Your task to perform on an android device: turn notification dots on Image 0: 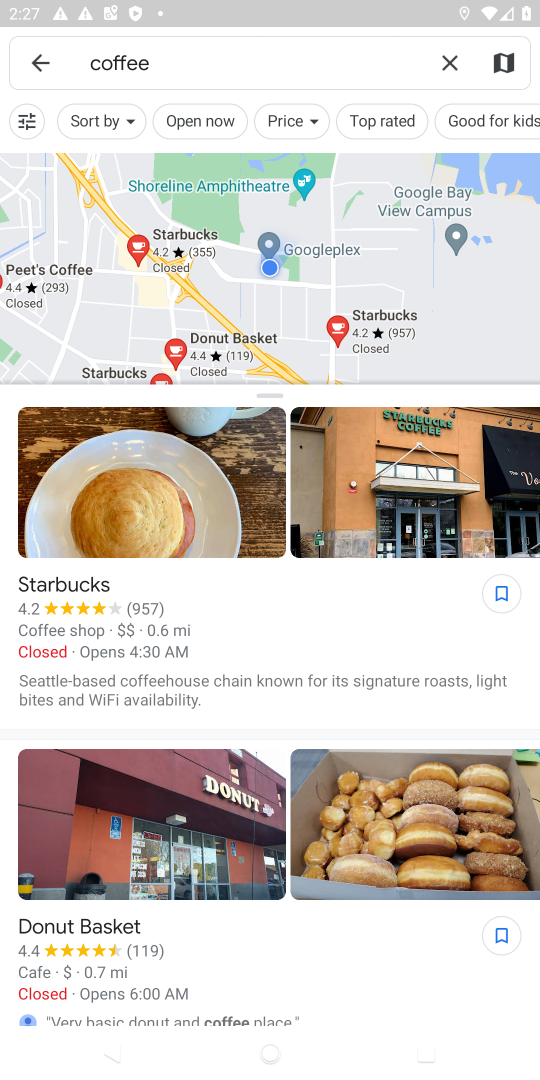
Step 0: press home button
Your task to perform on an android device: turn notification dots on Image 1: 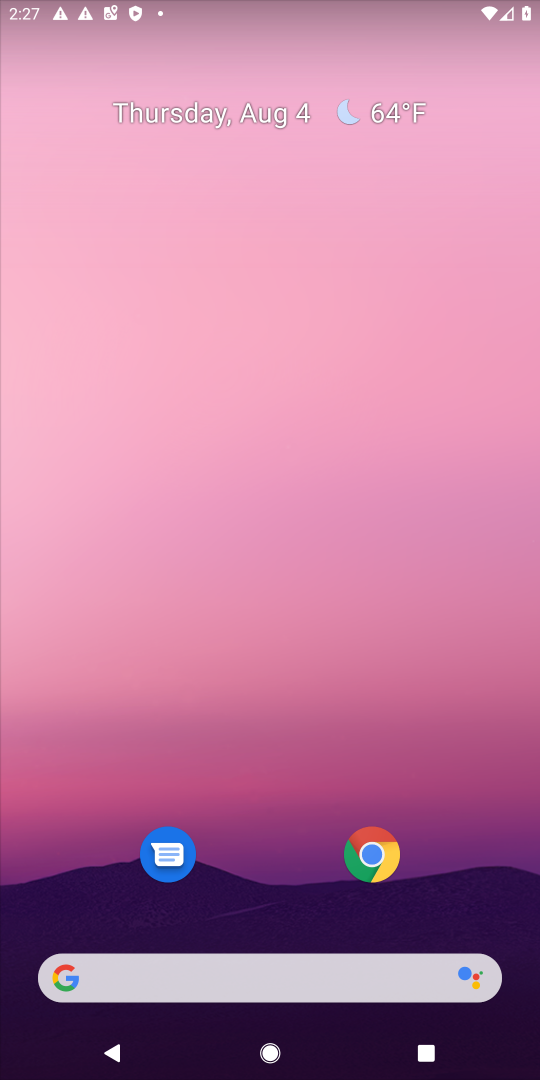
Step 1: drag from (260, 975) to (173, 399)
Your task to perform on an android device: turn notification dots on Image 2: 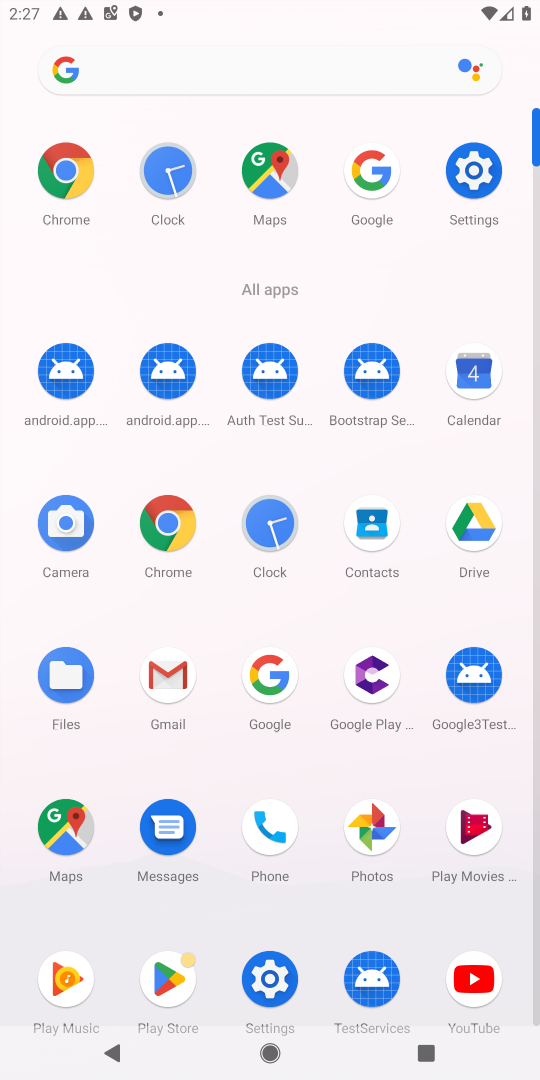
Step 2: click (463, 182)
Your task to perform on an android device: turn notification dots on Image 3: 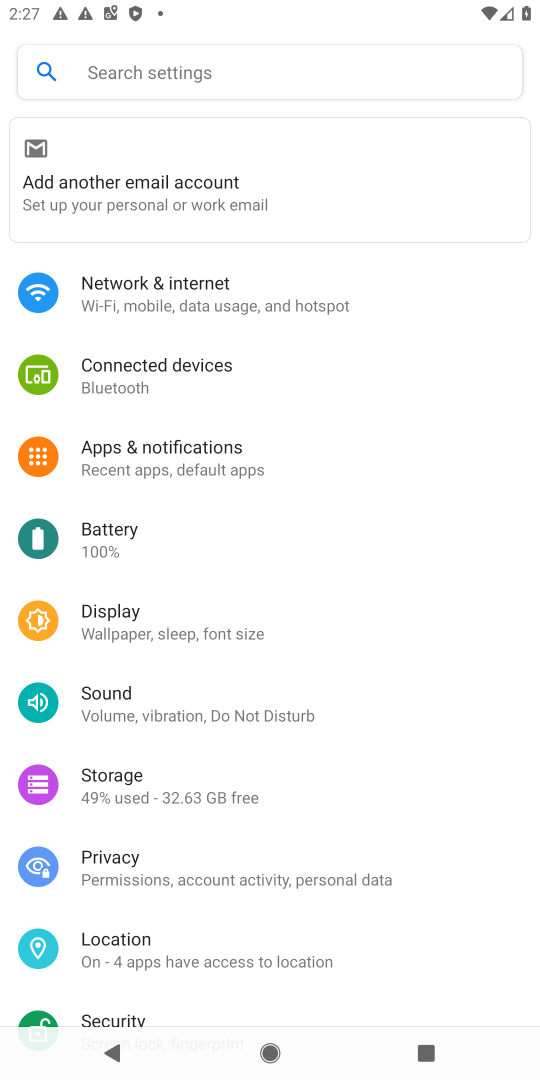
Step 3: click (157, 459)
Your task to perform on an android device: turn notification dots on Image 4: 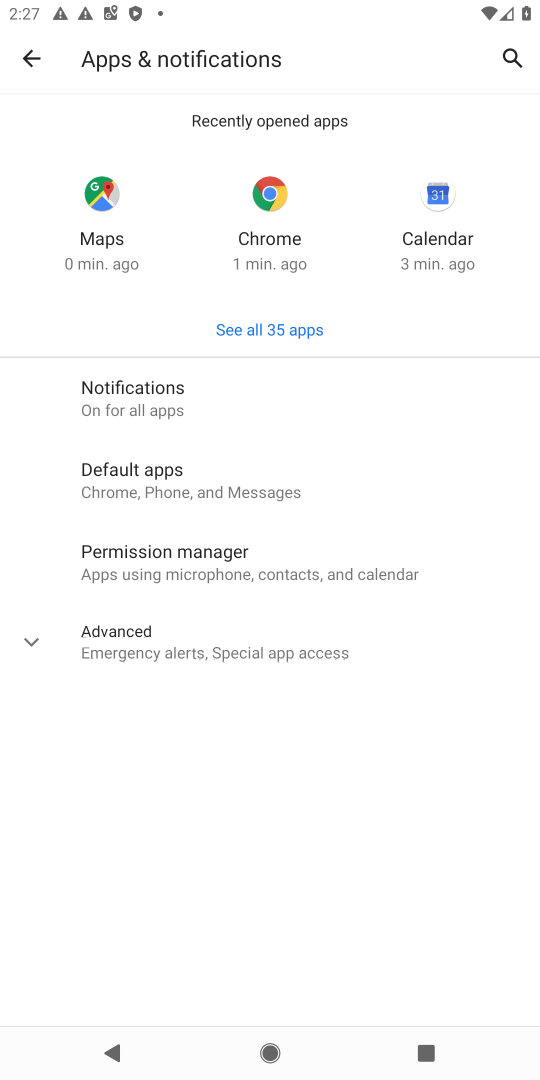
Step 4: click (134, 394)
Your task to perform on an android device: turn notification dots on Image 5: 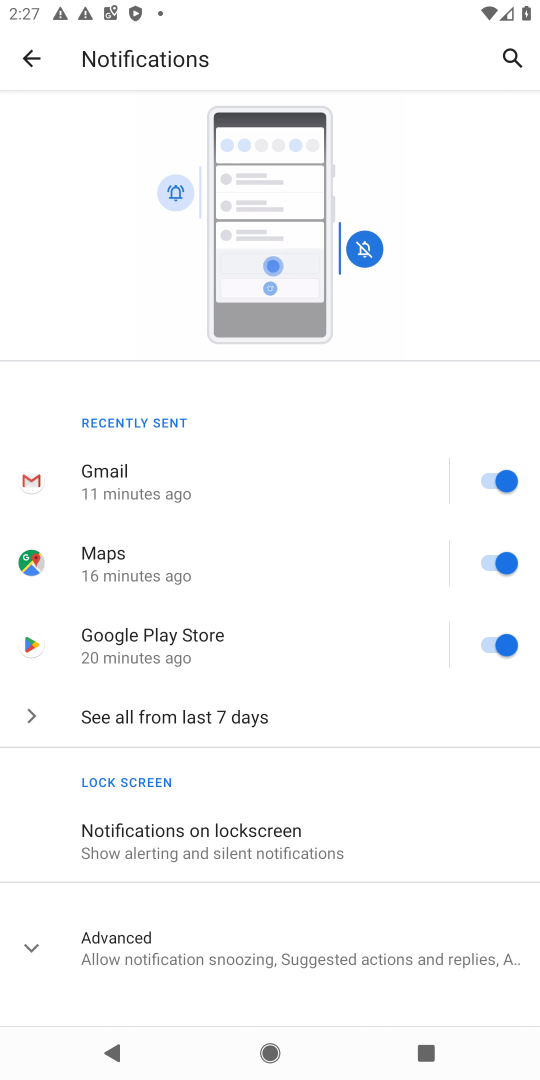
Step 5: click (120, 958)
Your task to perform on an android device: turn notification dots on Image 6: 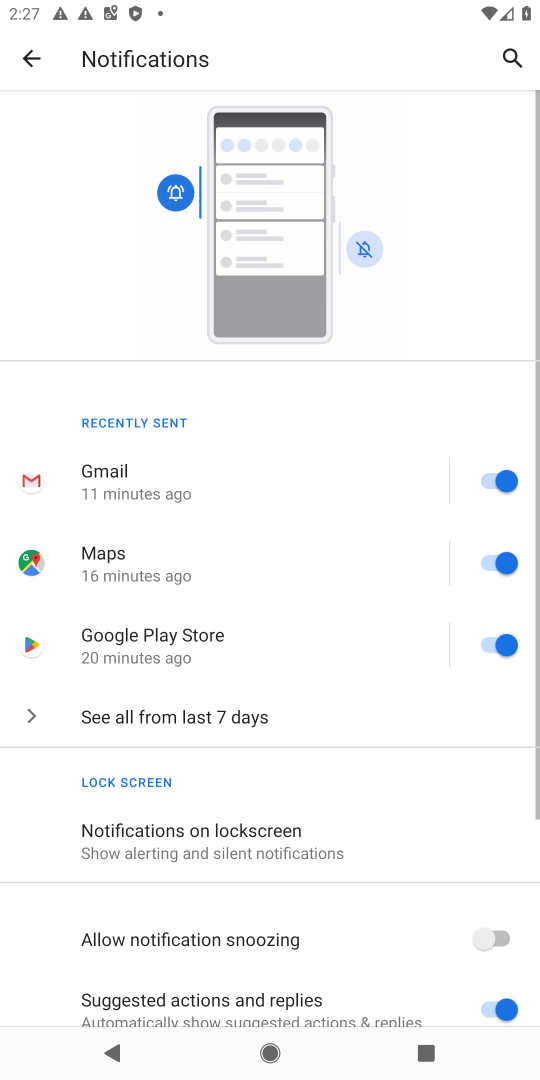
Step 6: task complete